Your task to perform on an android device: Turn off the flashlight Image 0: 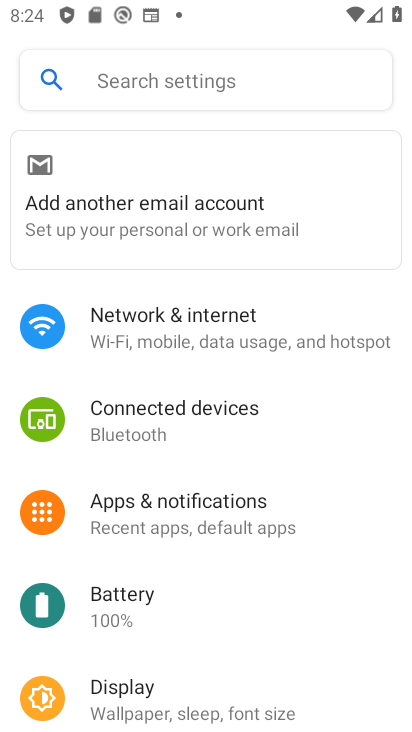
Step 0: press home button
Your task to perform on an android device: Turn off the flashlight Image 1: 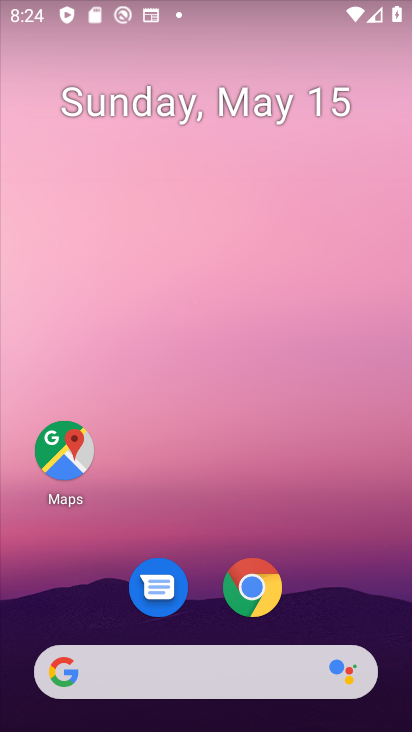
Step 1: drag from (321, 471) to (262, 51)
Your task to perform on an android device: Turn off the flashlight Image 2: 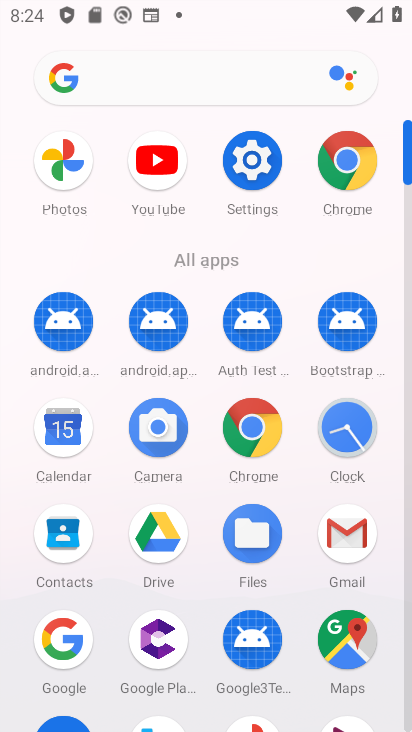
Step 2: click (264, 143)
Your task to perform on an android device: Turn off the flashlight Image 3: 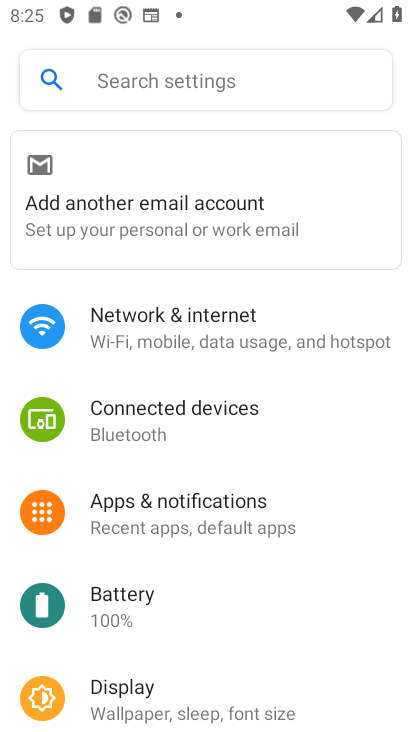
Step 3: task complete